Your task to perform on an android device: Open Youtube and go to "Your channel" Image 0: 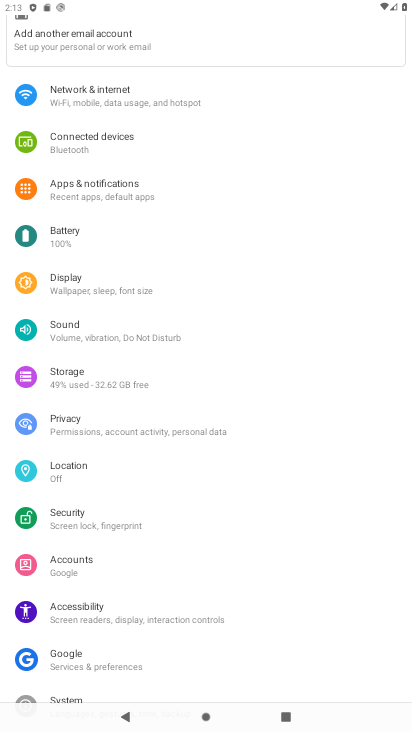
Step 0: press home button
Your task to perform on an android device: Open Youtube and go to "Your channel" Image 1: 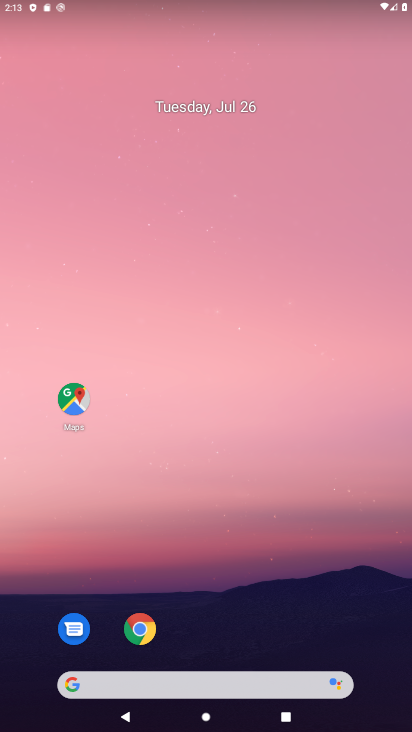
Step 1: drag from (219, 577) to (199, 109)
Your task to perform on an android device: Open Youtube and go to "Your channel" Image 2: 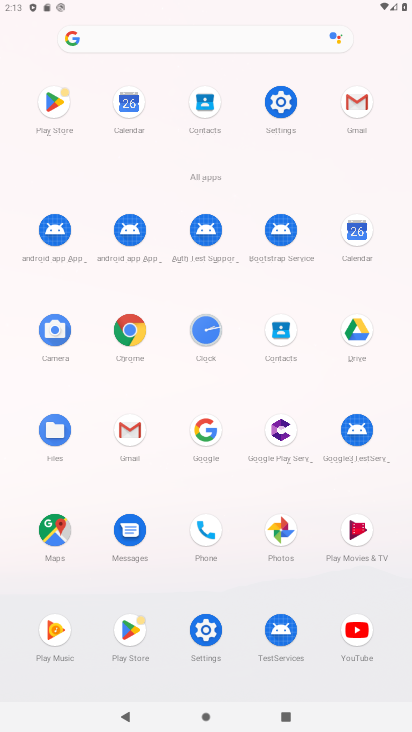
Step 2: click (361, 620)
Your task to perform on an android device: Open Youtube and go to "Your channel" Image 3: 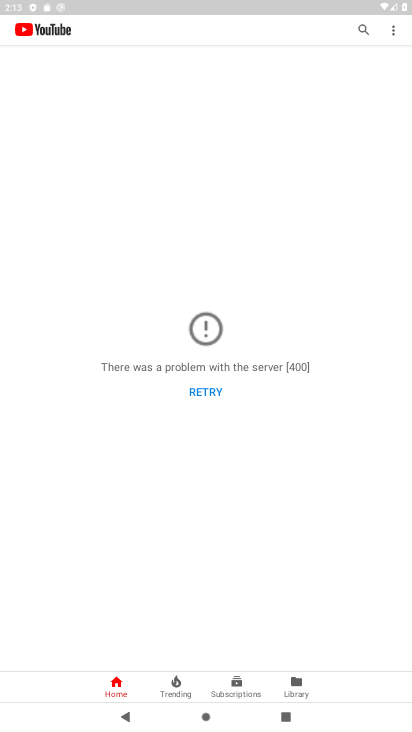
Step 3: click (209, 392)
Your task to perform on an android device: Open Youtube and go to "Your channel" Image 4: 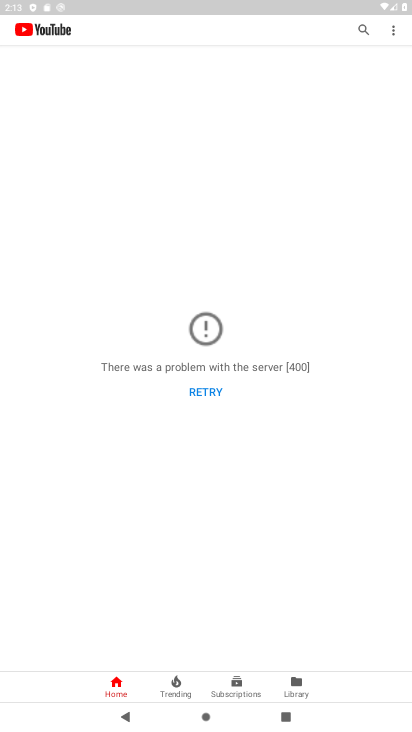
Step 4: click (209, 392)
Your task to perform on an android device: Open Youtube and go to "Your channel" Image 5: 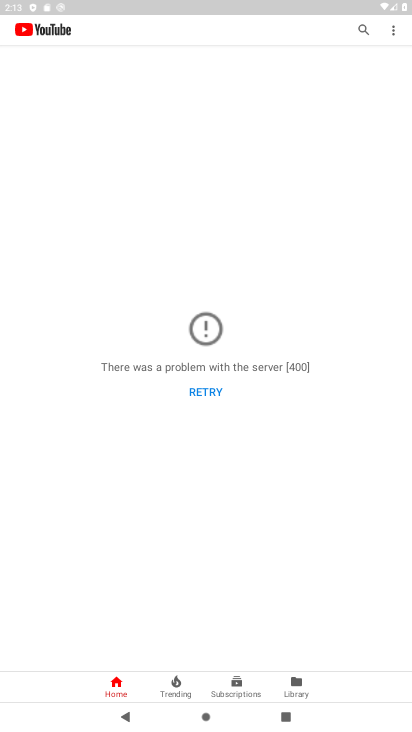
Step 5: task complete